Your task to perform on an android device: see creations saved in the google photos Image 0: 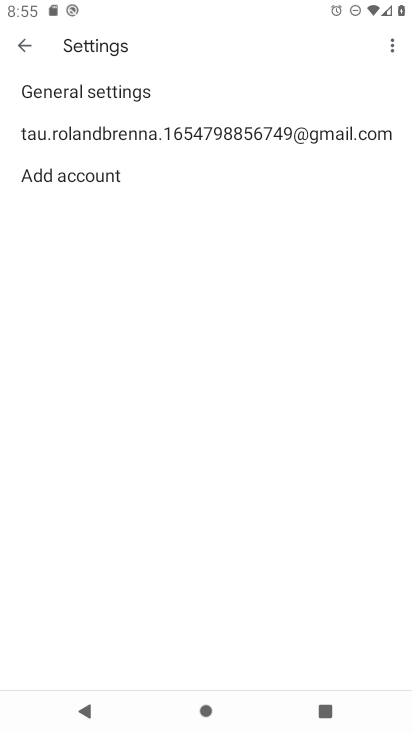
Step 0: press home button
Your task to perform on an android device: see creations saved in the google photos Image 1: 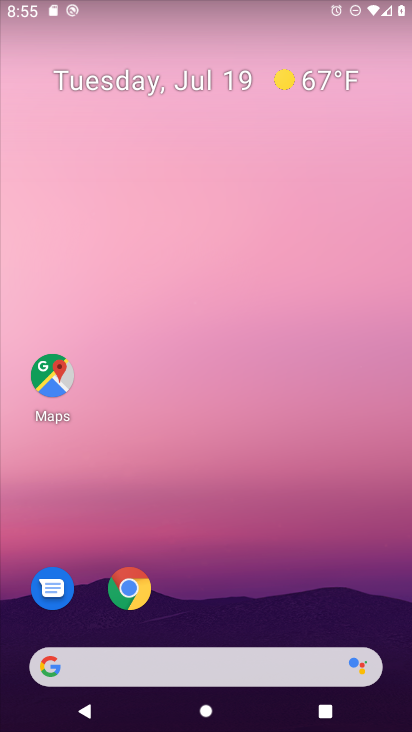
Step 1: drag from (334, 600) to (355, 109)
Your task to perform on an android device: see creations saved in the google photos Image 2: 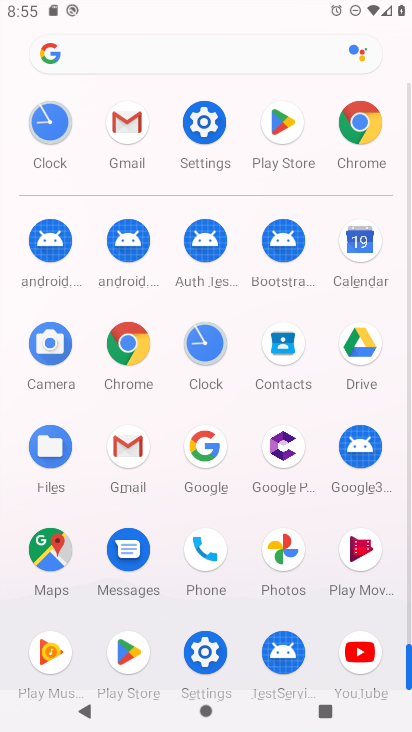
Step 2: click (282, 557)
Your task to perform on an android device: see creations saved in the google photos Image 3: 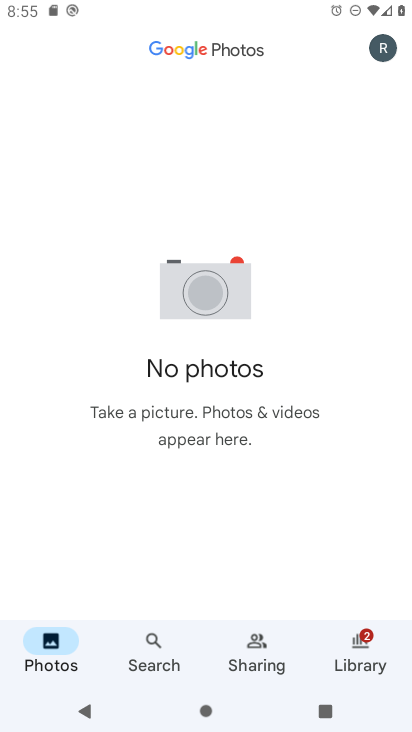
Step 3: click (156, 642)
Your task to perform on an android device: see creations saved in the google photos Image 4: 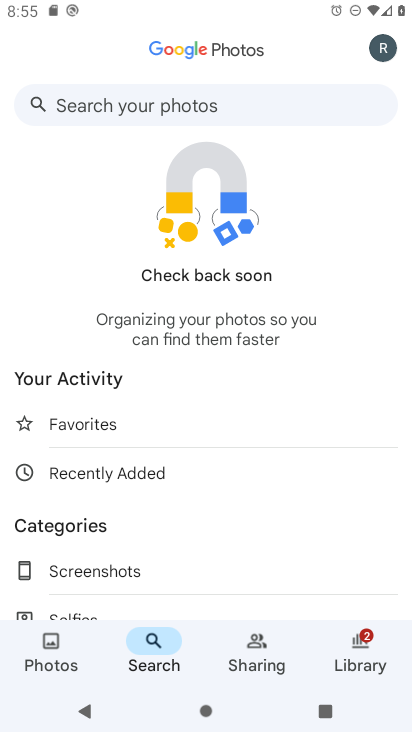
Step 4: drag from (328, 545) to (341, 430)
Your task to perform on an android device: see creations saved in the google photos Image 5: 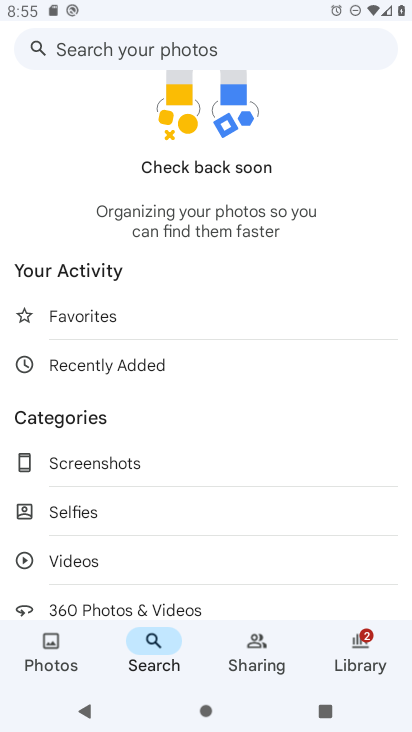
Step 5: drag from (315, 541) to (324, 402)
Your task to perform on an android device: see creations saved in the google photos Image 6: 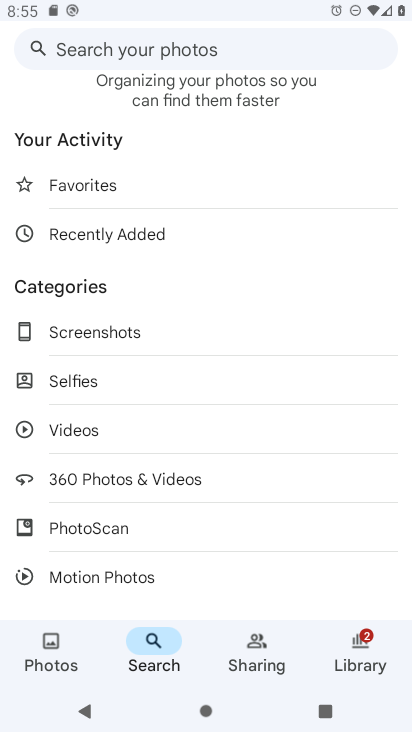
Step 6: drag from (314, 516) to (329, 411)
Your task to perform on an android device: see creations saved in the google photos Image 7: 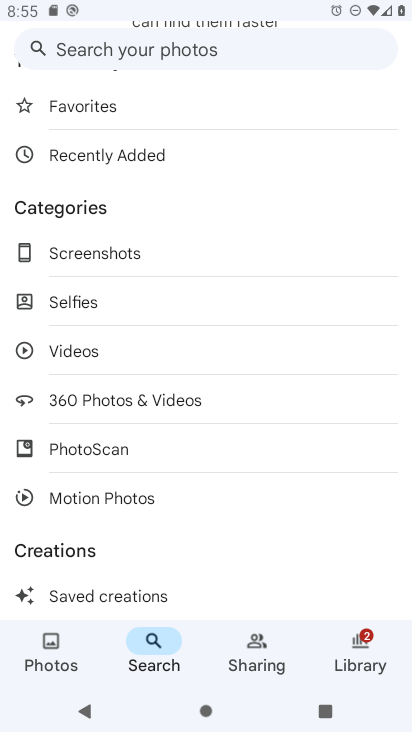
Step 7: drag from (276, 549) to (302, 371)
Your task to perform on an android device: see creations saved in the google photos Image 8: 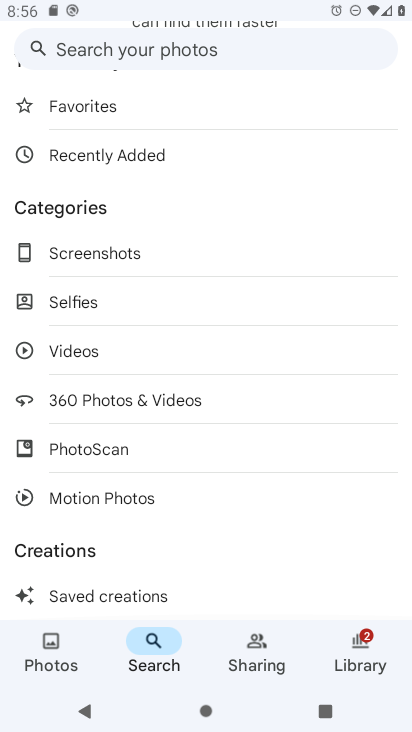
Step 8: click (151, 595)
Your task to perform on an android device: see creations saved in the google photos Image 9: 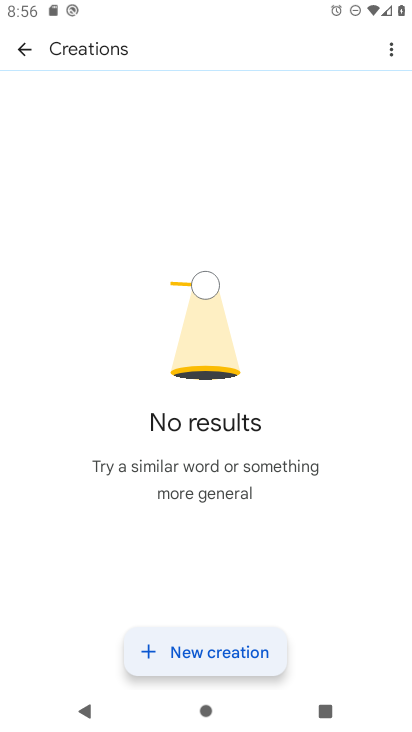
Step 9: task complete